Your task to perform on an android device: open a new tab in the chrome app Image 0: 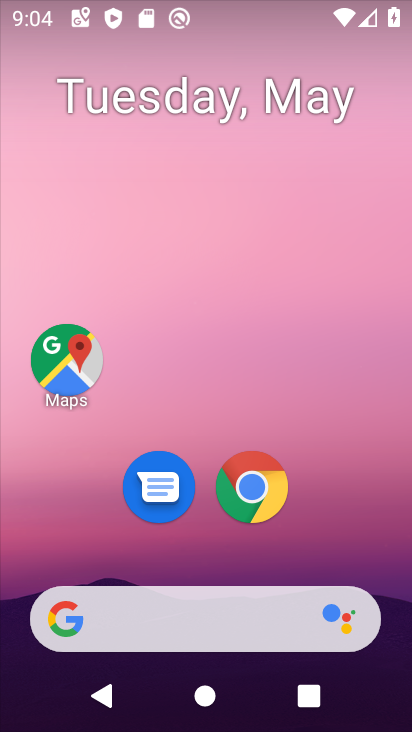
Step 0: drag from (365, 545) to (358, 177)
Your task to perform on an android device: open a new tab in the chrome app Image 1: 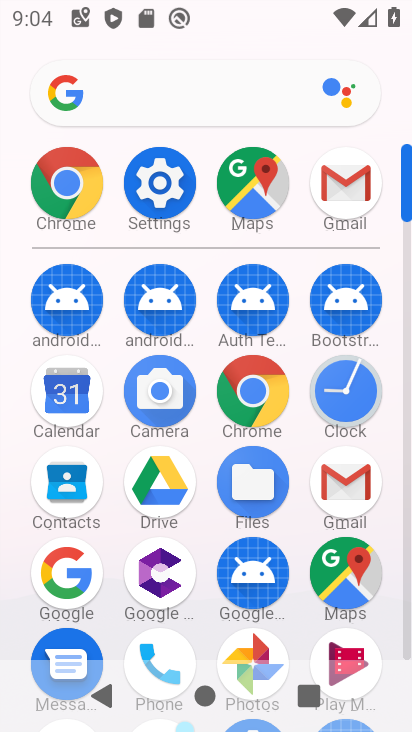
Step 1: click (267, 405)
Your task to perform on an android device: open a new tab in the chrome app Image 2: 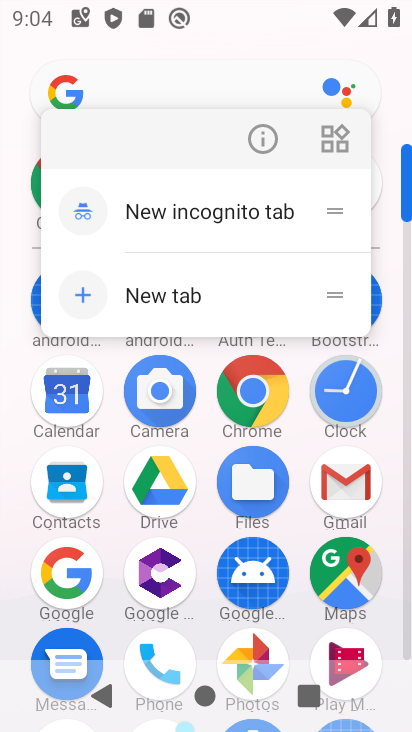
Step 2: click (267, 405)
Your task to perform on an android device: open a new tab in the chrome app Image 3: 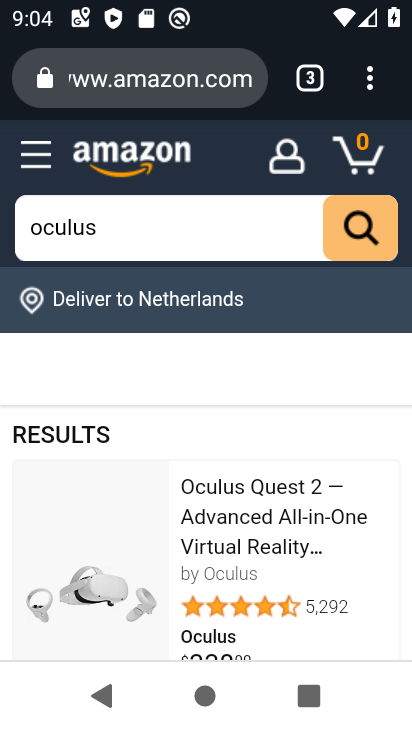
Step 3: click (368, 94)
Your task to perform on an android device: open a new tab in the chrome app Image 4: 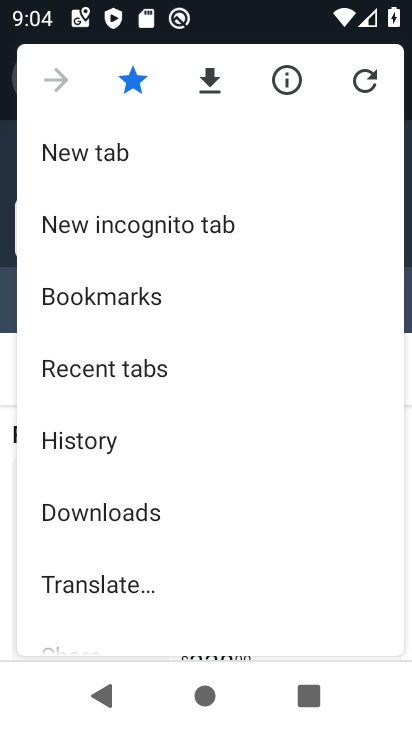
Step 4: click (122, 165)
Your task to perform on an android device: open a new tab in the chrome app Image 5: 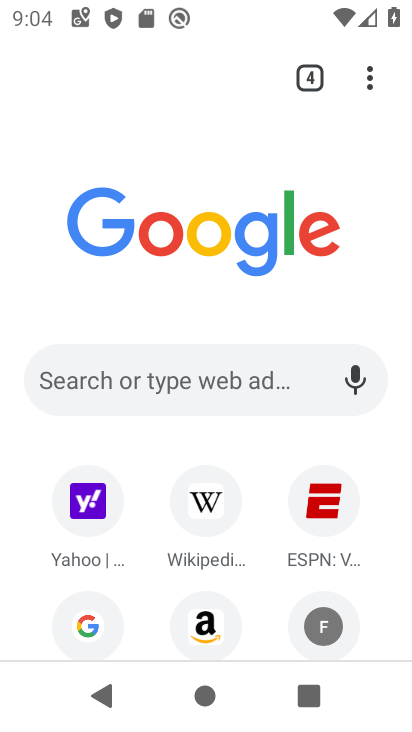
Step 5: task complete